Your task to perform on an android device: turn on priority inbox in the gmail app Image 0: 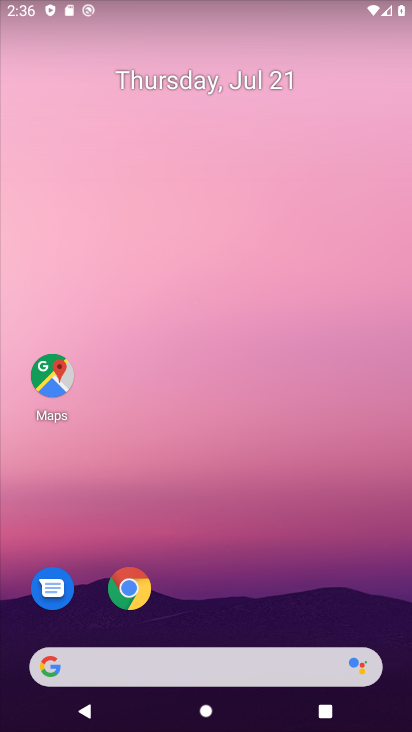
Step 0: drag from (242, 500) to (228, 13)
Your task to perform on an android device: turn on priority inbox in the gmail app Image 1: 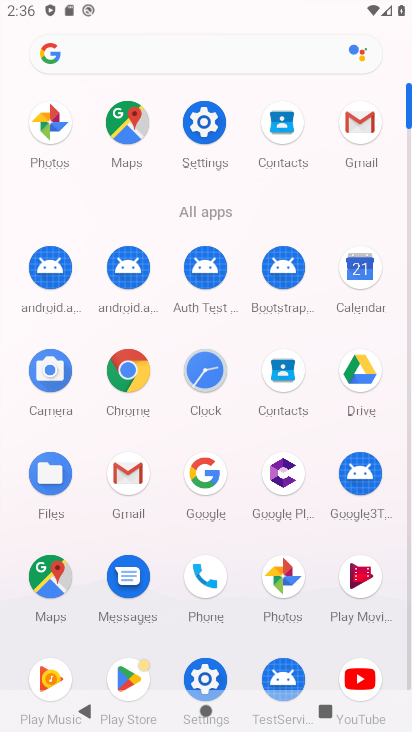
Step 1: click (124, 474)
Your task to perform on an android device: turn on priority inbox in the gmail app Image 2: 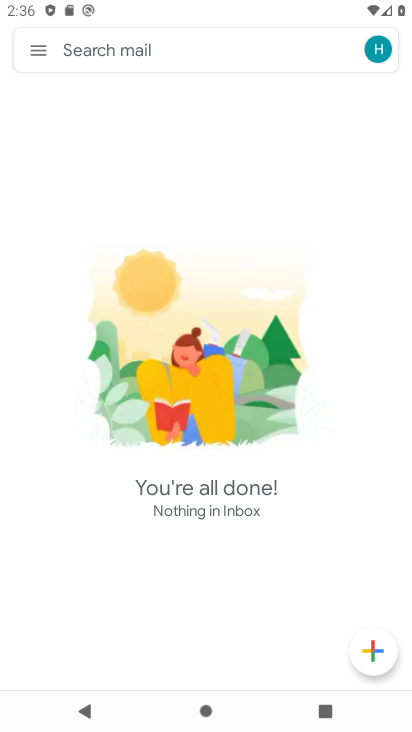
Step 2: click (33, 51)
Your task to perform on an android device: turn on priority inbox in the gmail app Image 3: 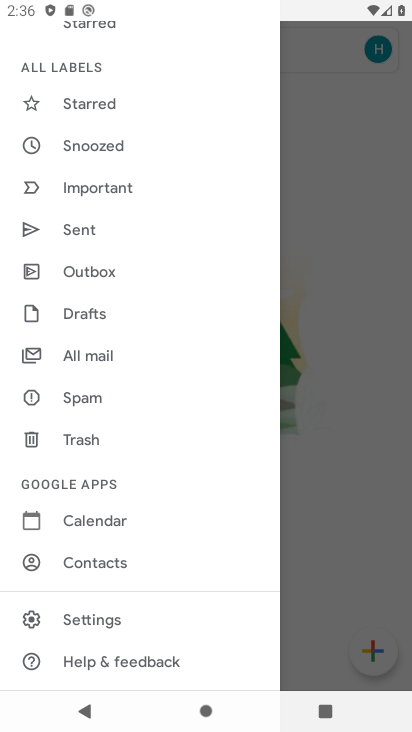
Step 3: click (89, 615)
Your task to perform on an android device: turn on priority inbox in the gmail app Image 4: 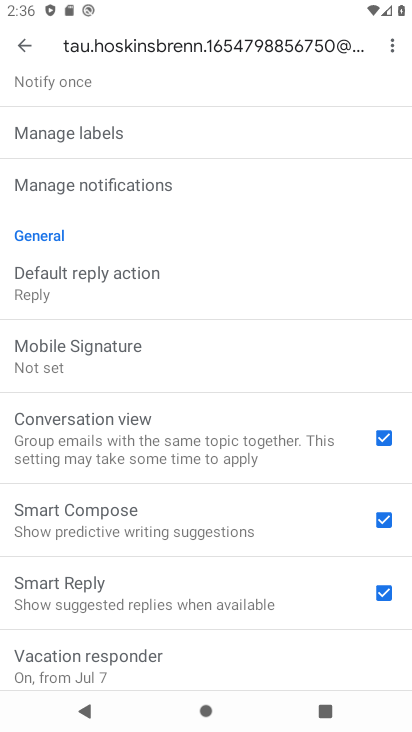
Step 4: drag from (227, 176) to (220, 471)
Your task to perform on an android device: turn on priority inbox in the gmail app Image 5: 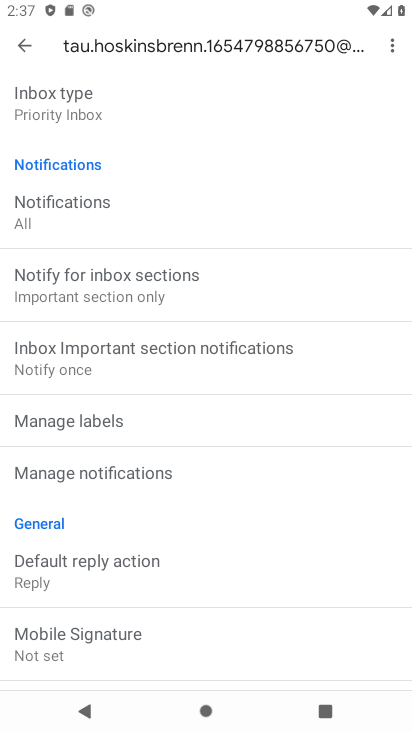
Step 5: drag from (214, 151) to (271, 515)
Your task to perform on an android device: turn on priority inbox in the gmail app Image 6: 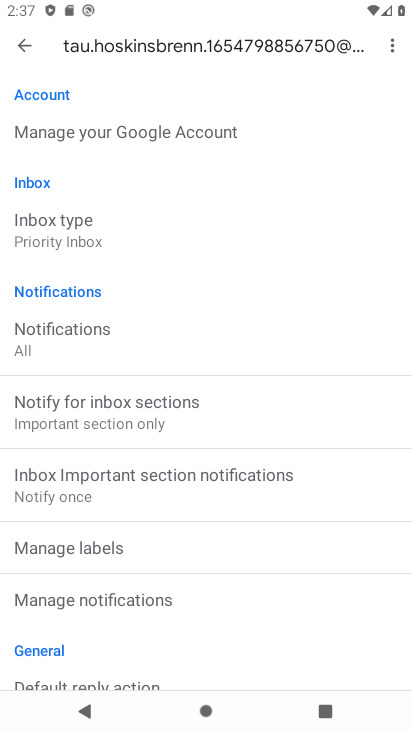
Step 6: click (67, 241)
Your task to perform on an android device: turn on priority inbox in the gmail app Image 7: 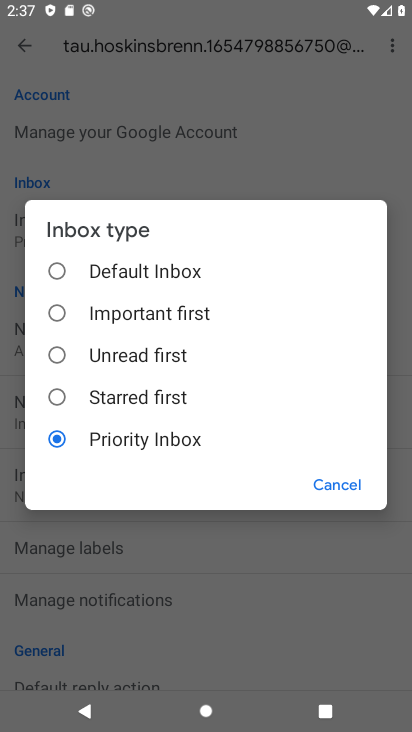
Step 7: task complete